Your task to perform on an android device: Is it going to rain today? Image 0: 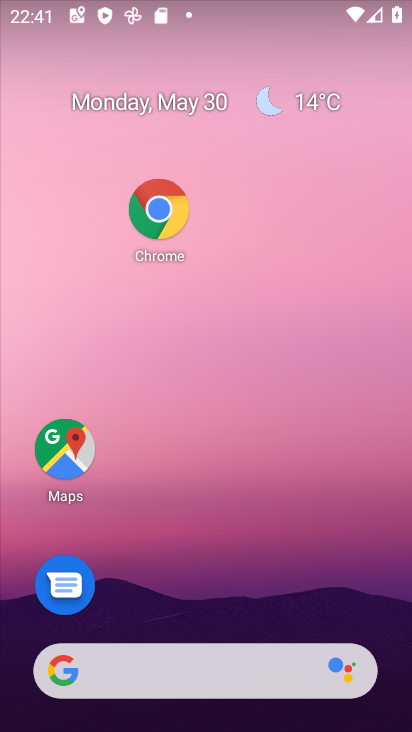
Step 0: drag from (172, 515) to (172, 62)
Your task to perform on an android device: Is it going to rain today? Image 1: 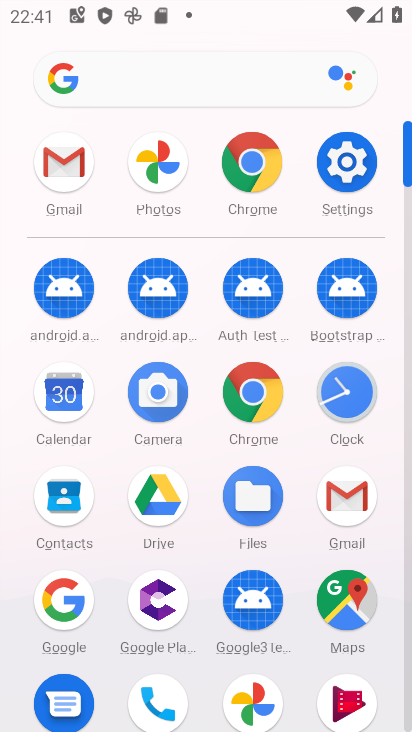
Step 1: click (153, 75)
Your task to perform on an android device: Is it going to rain today? Image 2: 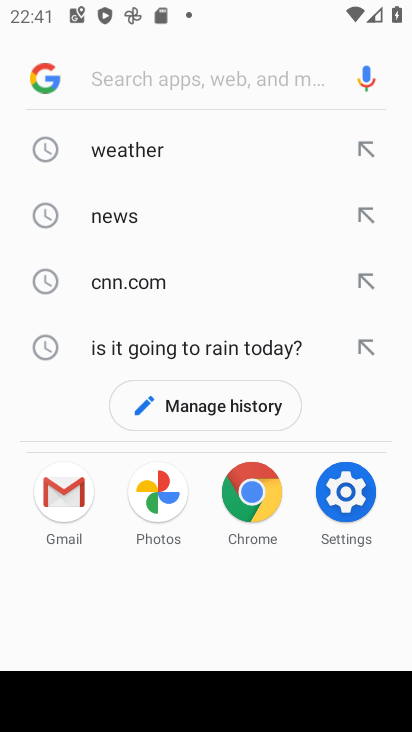
Step 2: click (142, 340)
Your task to perform on an android device: Is it going to rain today? Image 3: 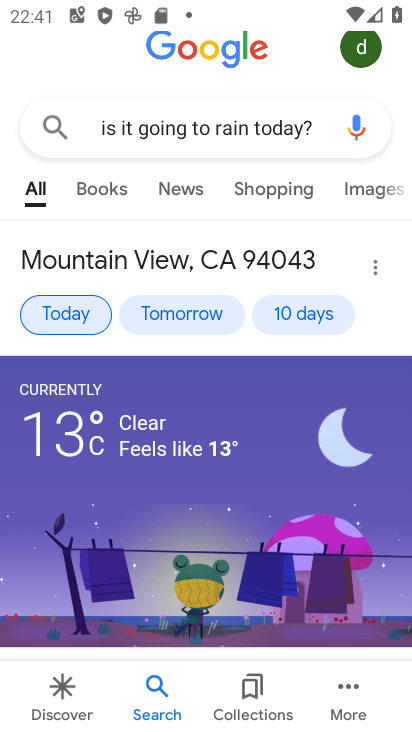
Step 3: task complete